Your task to perform on an android device: Open Chrome and go to settings Image 0: 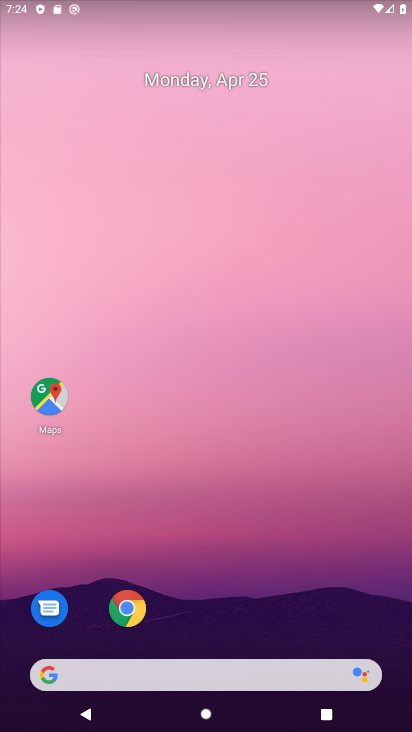
Step 0: click (131, 600)
Your task to perform on an android device: Open Chrome and go to settings Image 1: 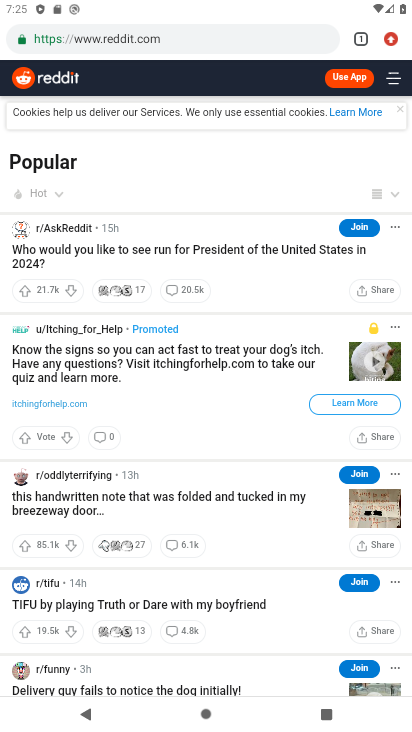
Step 1: click (392, 42)
Your task to perform on an android device: Open Chrome and go to settings Image 2: 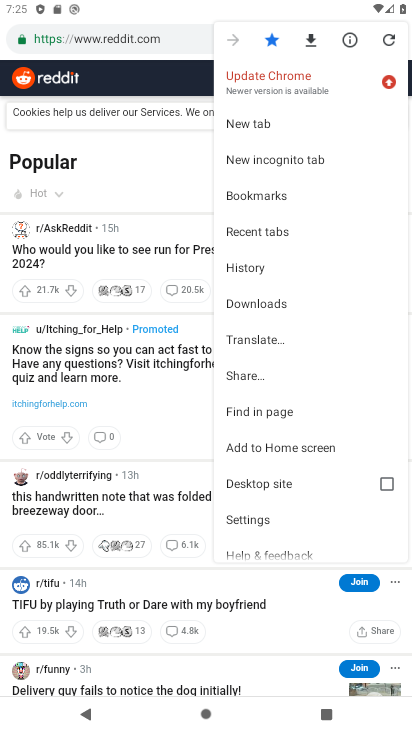
Step 2: click (263, 517)
Your task to perform on an android device: Open Chrome and go to settings Image 3: 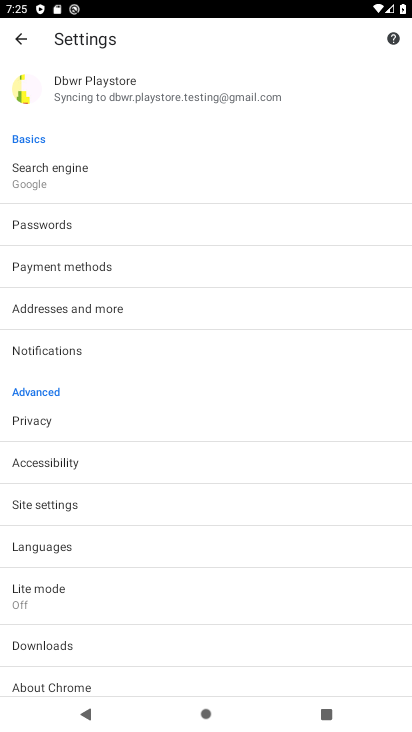
Step 3: task complete